Your task to perform on an android device: change the clock display to show seconds Image 0: 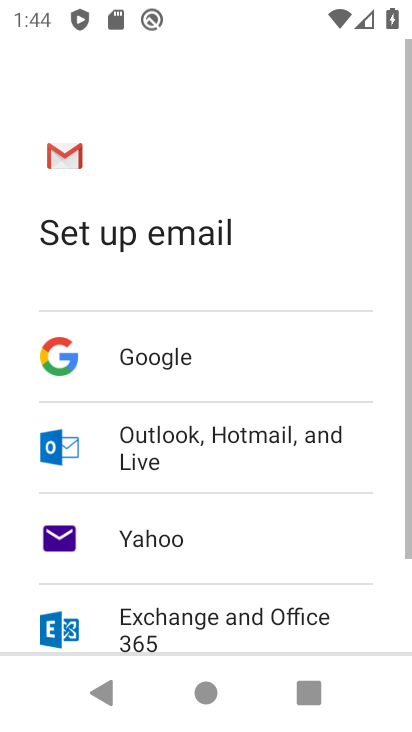
Step 0: press home button
Your task to perform on an android device: change the clock display to show seconds Image 1: 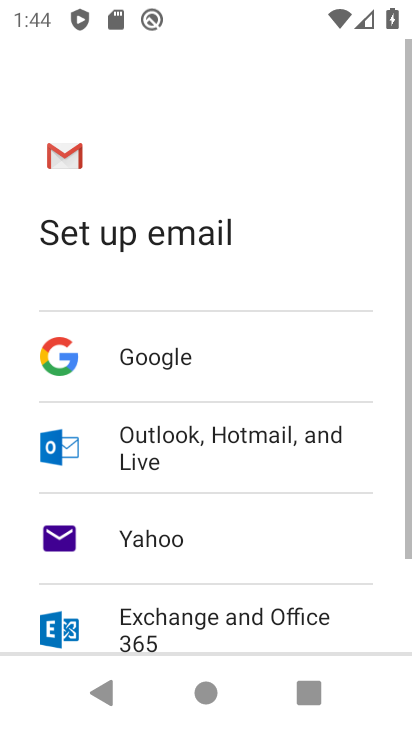
Step 1: press home button
Your task to perform on an android device: change the clock display to show seconds Image 2: 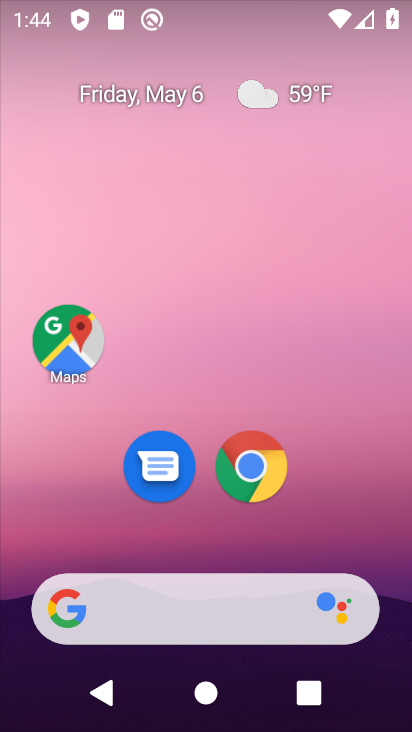
Step 2: press home button
Your task to perform on an android device: change the clock display to show seconds Image 3: 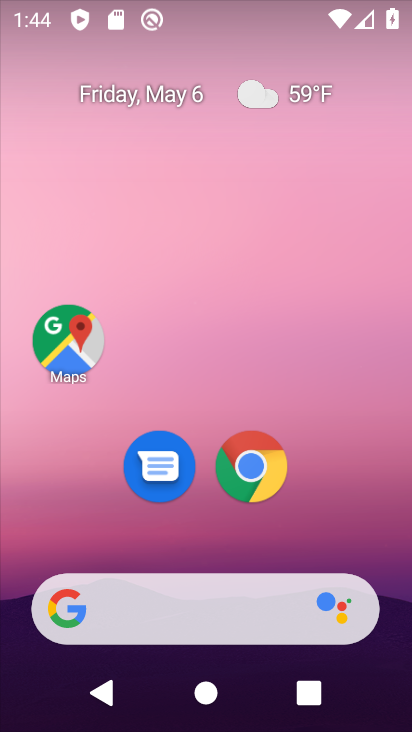
Step 3: drag from (210, 548) to (210, 58)
Your task to perform on an android device: change the clock display to show seconds Image 4: 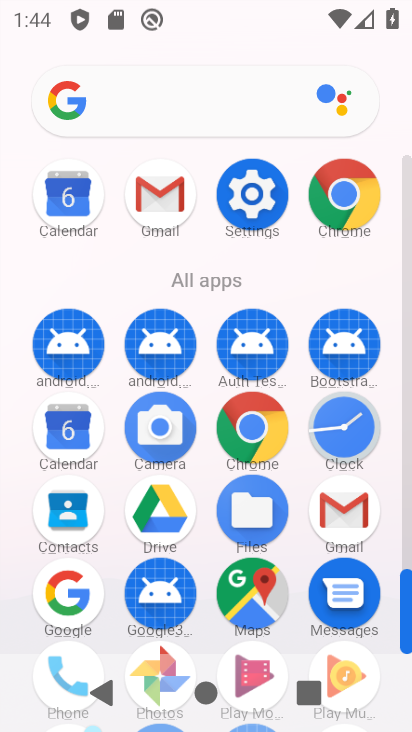
Step 4: click (340, 422)
Your task to perform on an android device: change the clock display to show seconds Image 5: 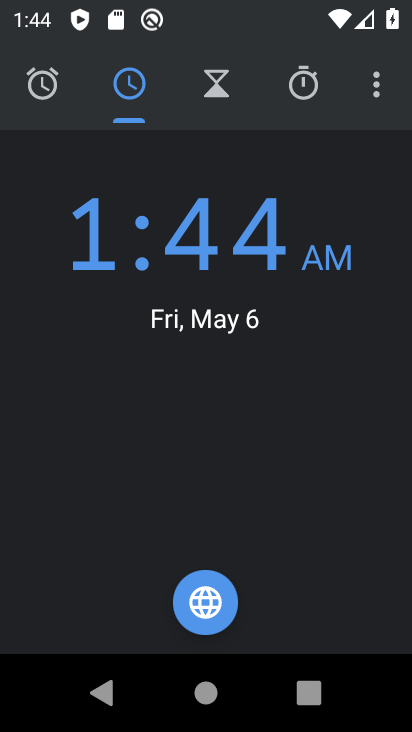
Step 5: click (367, 80)
Your task to perform on an android device: change the clock display to show seconds Image 6: 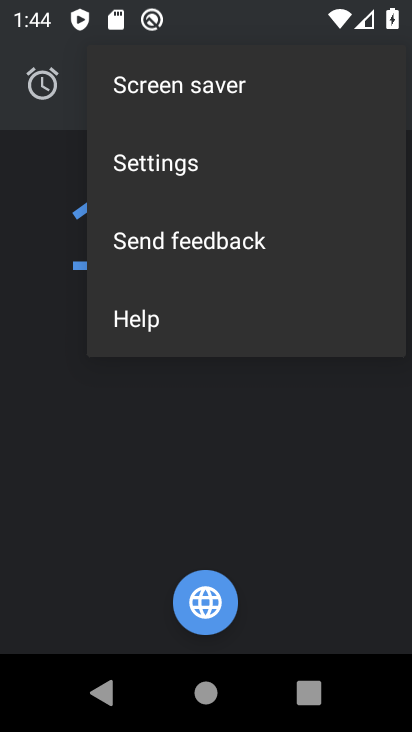
Step 6: click (251, 160)
Your task to perform on an android device: change the clock display to show seconds Image 7: 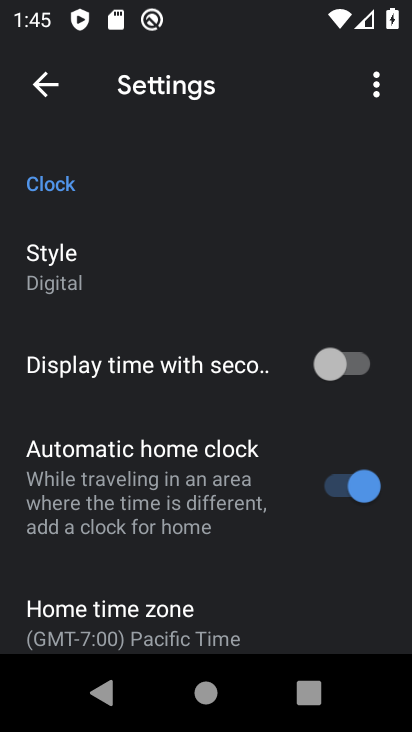
Step 7: click (342, 369)
Your task to perform on an android device: change the clock display to show seconds Image 8: 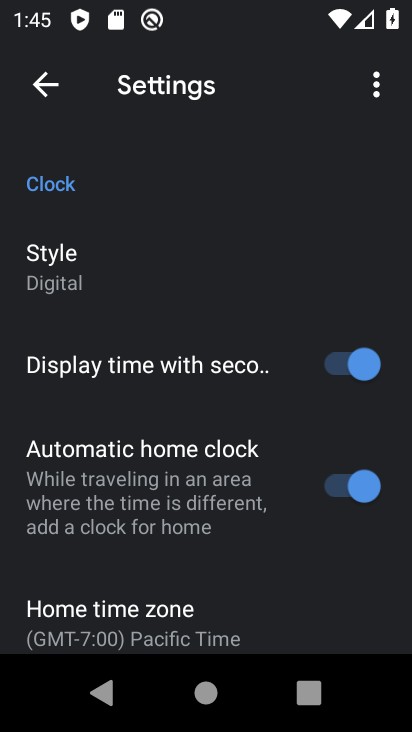
Step 8: task complete